Your task to perform on an android device: Do I have any events tomorrow? Image 0: 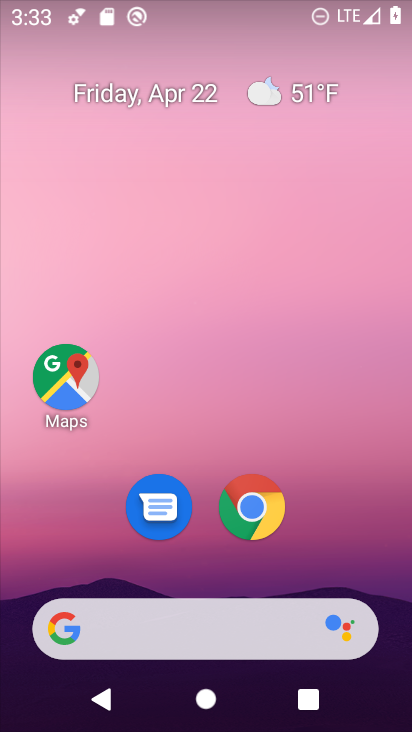
Step 0: drag from (208, 582) to (263, 106)
Your task to perform on an android device: Do I have any events tomorrow? Image 1: 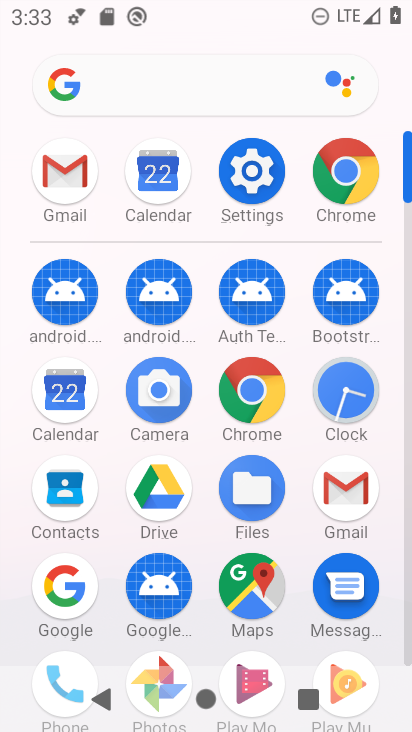
Step 1: click (49, 401)
Your task to perform on an android device: Do I have any events tomorrow? Image 2: 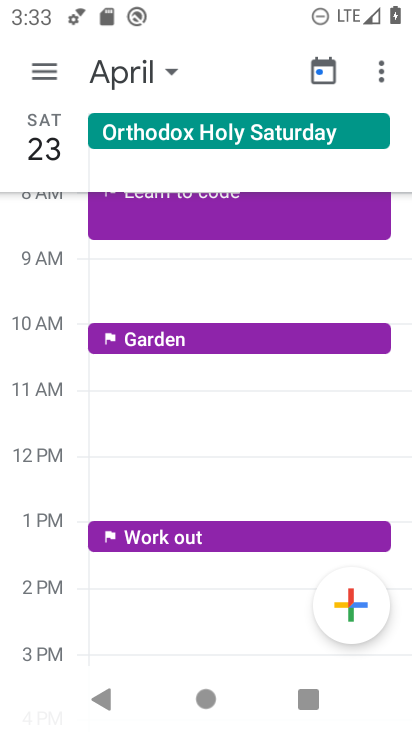
Step 2: task complete